Your task to perform on an android device: toggle priority inbox in the gmail app Image 0: 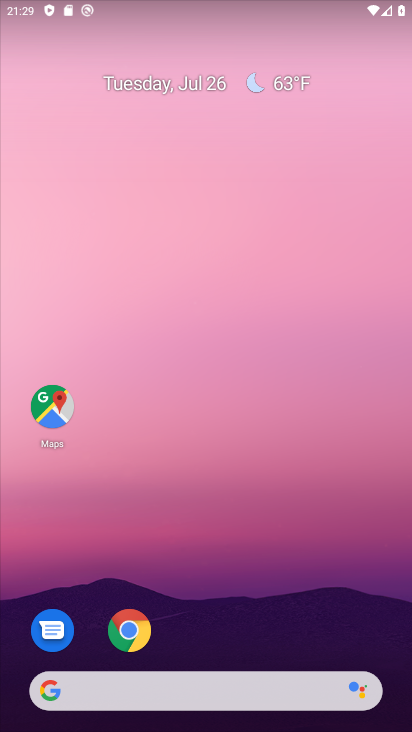
Step 0: drag from (212, 636) to (283, 0)
Your task to perform on an android device: toggle priority inbox in the gmail app Image 1: 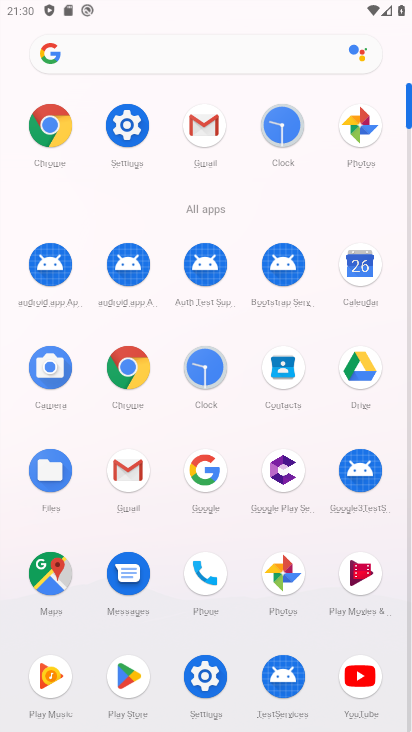
Step 1: click (217, 125)
Your task to perform on an android device: toggle priority inbox in the gmail app Image 2: 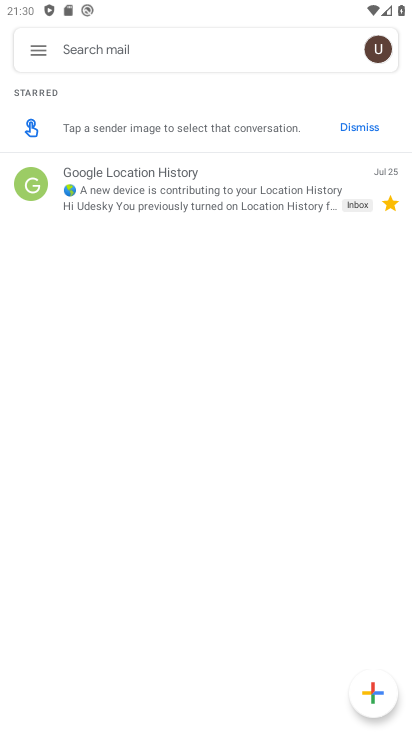
Step 2: click (48, 45)
Your task to perform on an android device: toggle priority inbox in the gmail app Image 3: 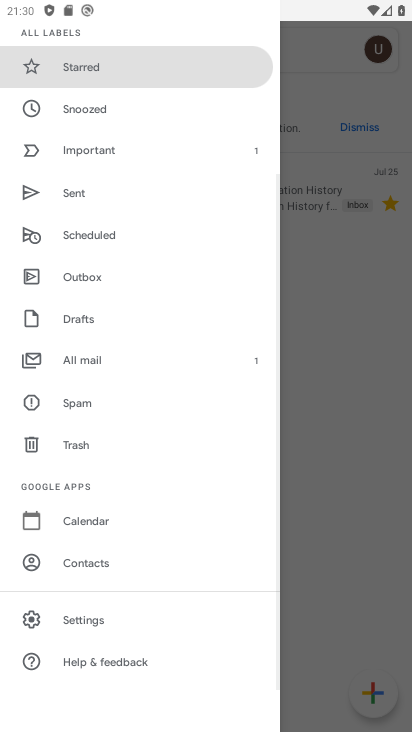
Step 3: click (104, 616)
Your task to perform on an android device: toggle priority inbox in the gmail app Image 4: 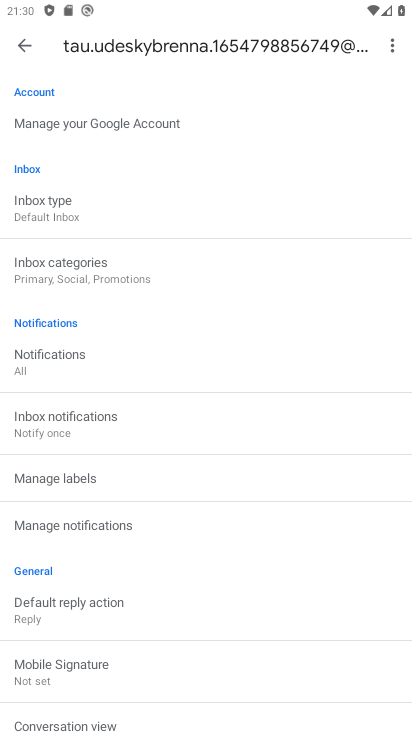
Step 4: click (79, 217)
Your task to perform on an android device: toggle priority inbox in the gmail app Image 5: 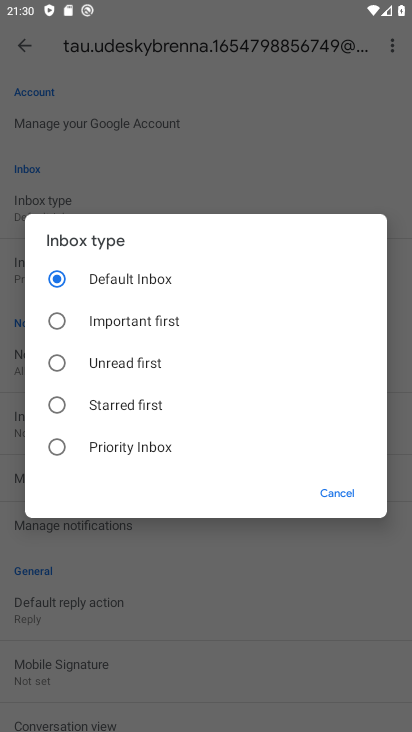
Step 5: click (81, 443)
Your task to perform on an android device: toggle priority inbox in the gmail app Image 6: 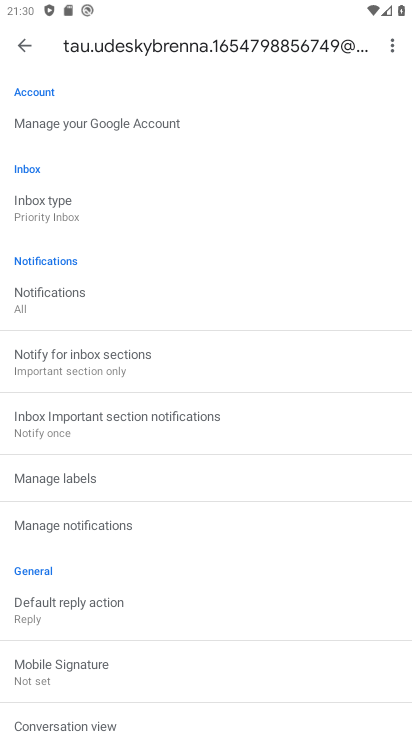
Step 6: task complete